Your task to perform on an android device: Go to Yahoo.com Image 0: 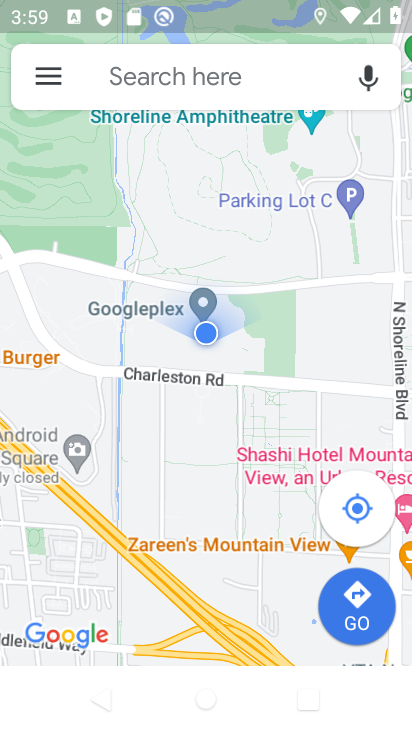
Step 0: press home button
Your task to perform on an android device: Go to Yahoo.com Image 1: 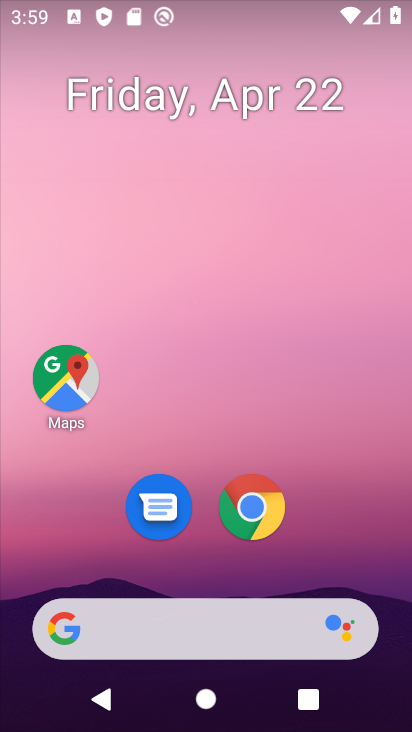
Step 1: click (249, 515)
Your task to perform on an android device: Go to Yahoo.com Image 2: 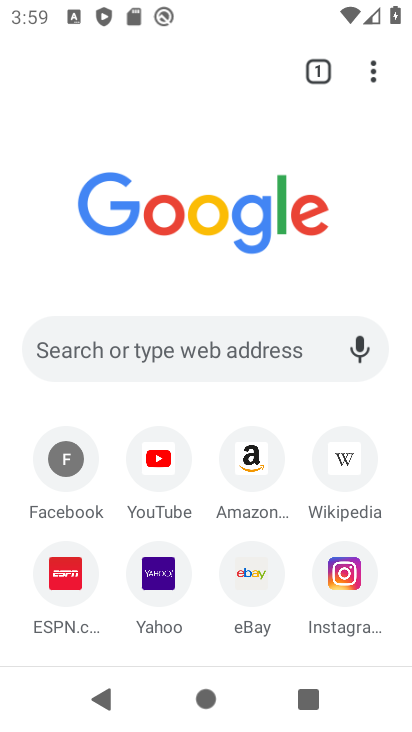
Step 2: click (164, 568)
Your task to perform on an android device: Go to Yahoo.com Image 3: 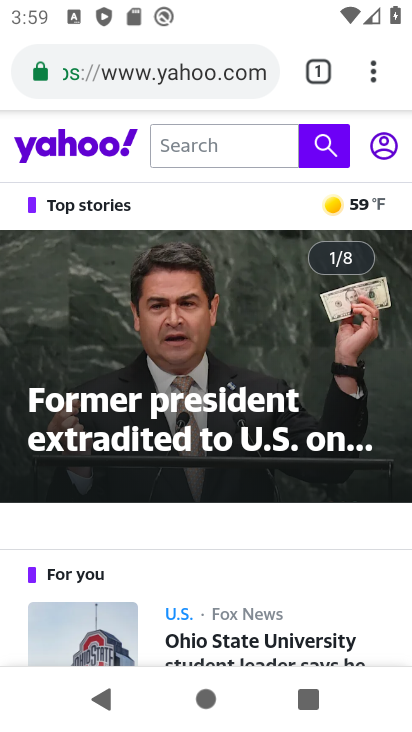
Step 3: task complete